Your task to perform on an android device: find which apps use the phone's location Image 0: 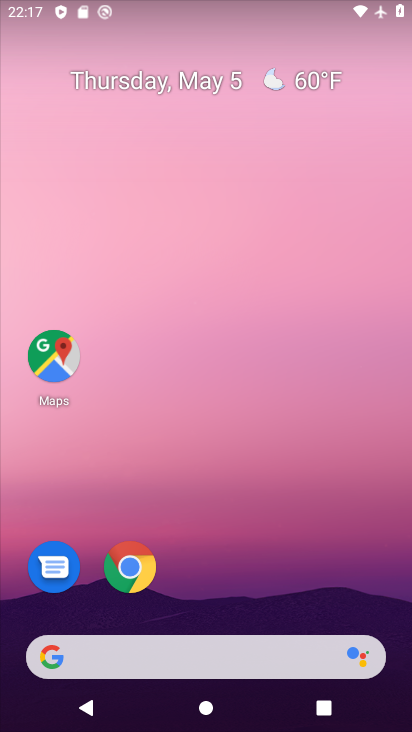
Step 0: drag from (209, 592) to (222, 152)
Your task to perform on an android device: find which apps use the phone's location Image 1: 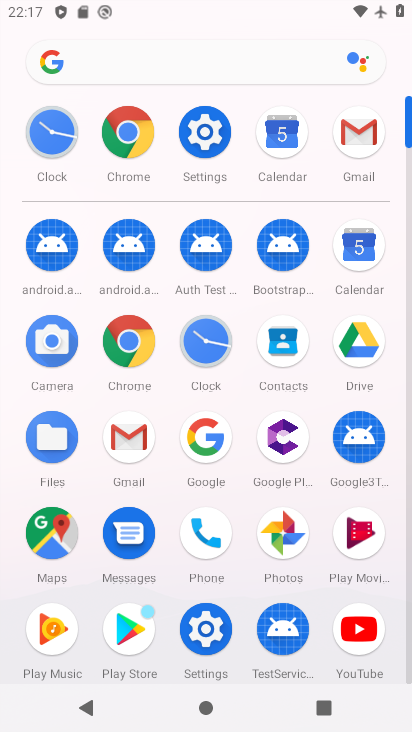
Step 1: click (218, 139)
Your task to perform on an android device: find which apps use the phone's location Image 2: 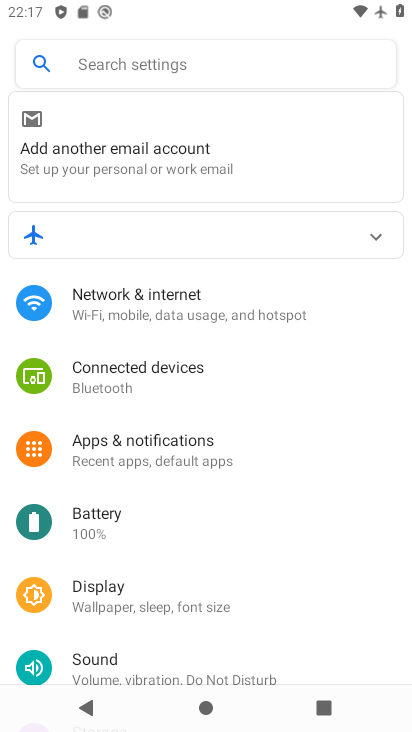
Step 2: drag from (151, 616) to (160, 365)
Your task to perform on an android device: find which apps use the phone's location Image 3: 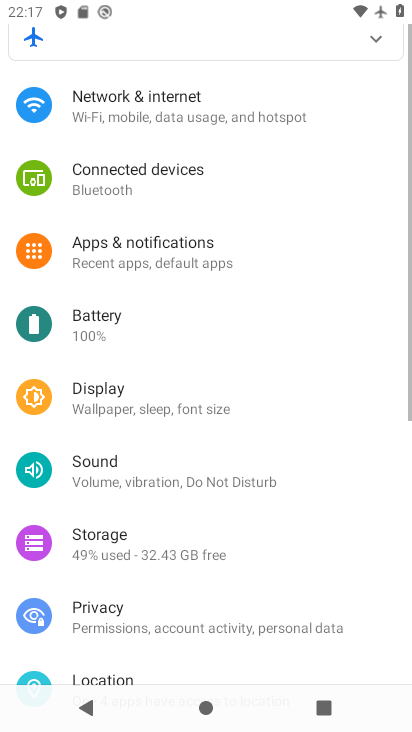
Step 3: drag from (143, 638) to (162, 383)
Your task to perform on an android device: find which apps use the phone's location Image 4: 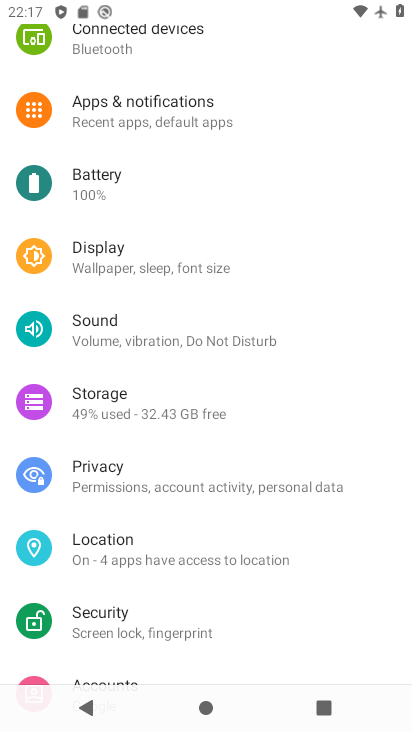
Step 4: click (115, 542)
Your task to perform on an android device: find which apps use the phone's location Image 5: 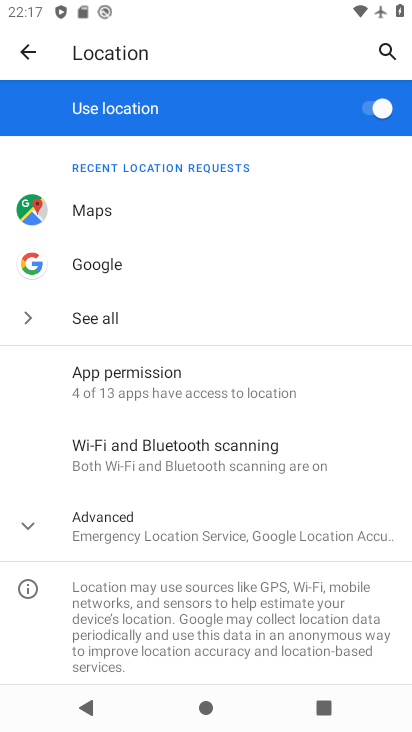
Step 5: click (130, 387)
Your task to perform on an android device: find which apps use the phone's location Image 6: 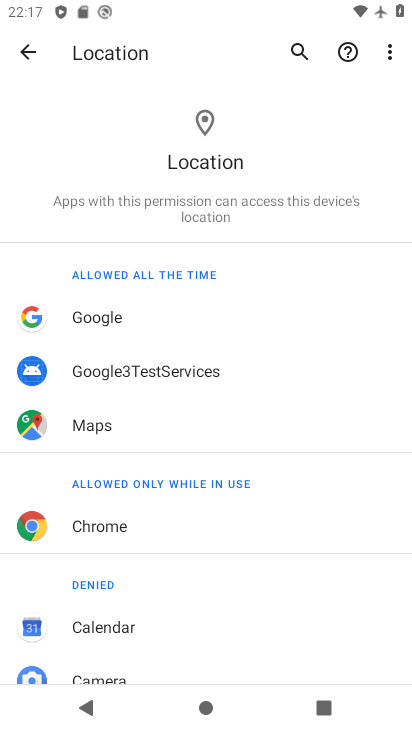
Step 6: task complete